Your task to perform on an android device: turn vacation reply on in the gmail app Image 0: 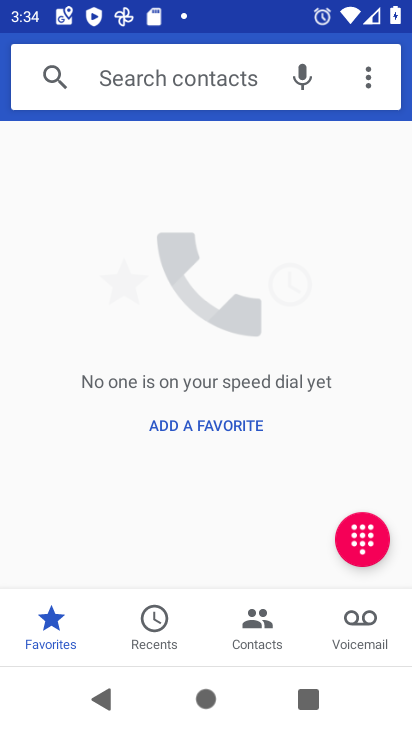
Step 0: press home button
Your task to perform on an android device: turn vacation reply on in the gmail app Image 1: 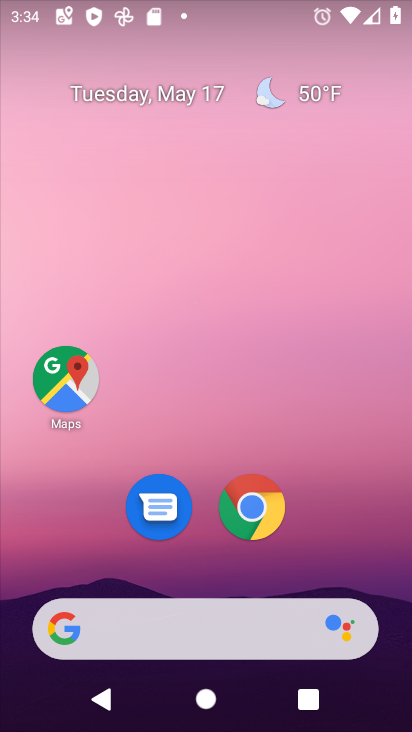
Step 1: drag from (300, 566) to (183, 103)
Your task to perform on an android device: turn vacation reply on in the gmail app Image 2: 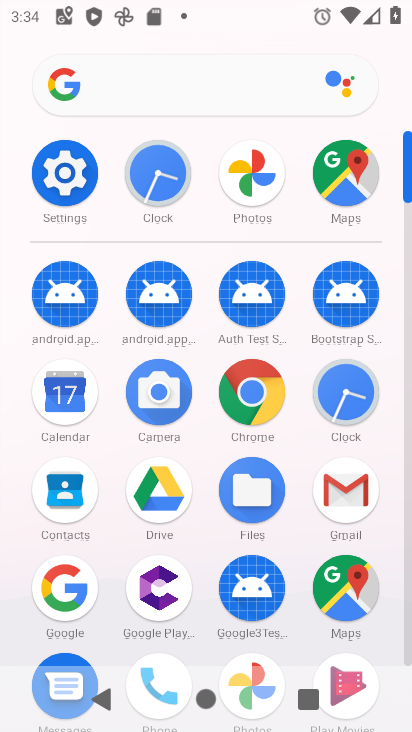
Step 2: click (341, 484)
Your task to perform on an android device: turn vacation reply on in the gmail app Image 3: 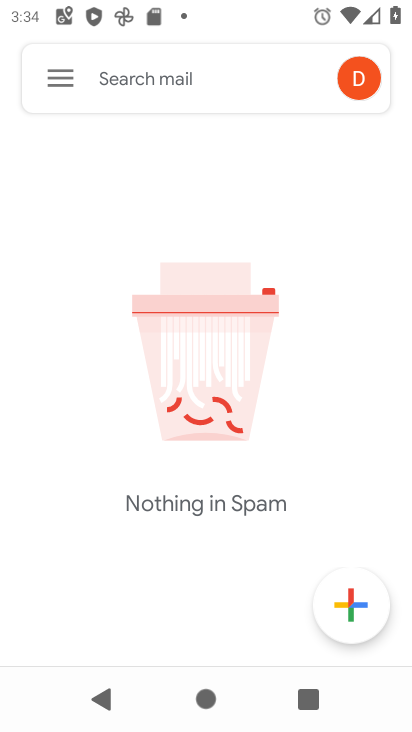
Step 3: click (61, 75)
Your task to perform on an android device: turn vacation reply on in the gmail app Image 4: 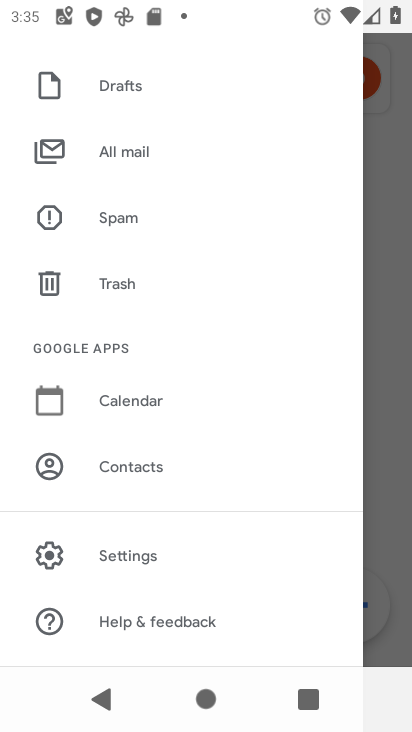
Step 4: click (158, 551)
Your task to perform on an android device: turn vacation reply on in the gmail app Image 5: 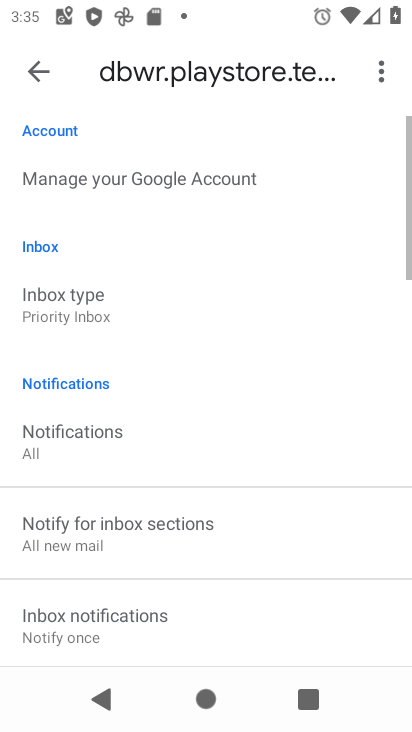
Step 5: drag from (190, 510) to (147, 119)
Your task to perform on an android device: turn vacation reply on in the gmail app Image 6: 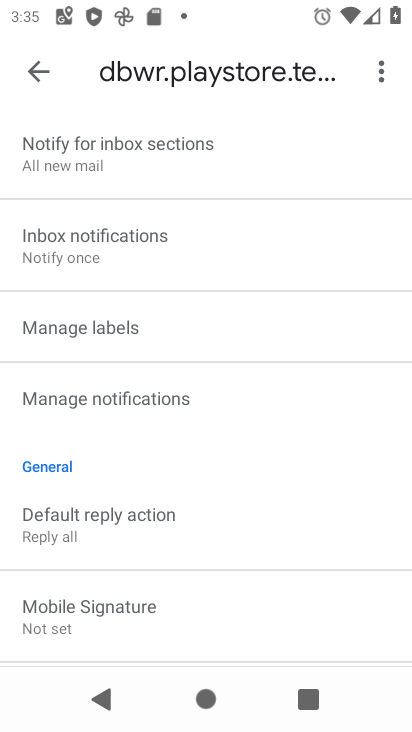
Step 6: drag from (159, 472) to (168, 279)
Your task to perform on an android device: turn vacation reply on in the gmail app Image 7: 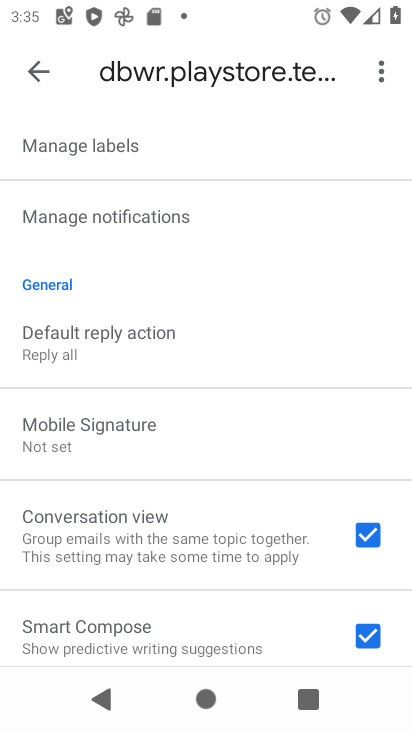
Step 7: drag from (175, 564) to (189, 146)
Your task to perform on an android device: turn vacation reply on in the gmail app Image 8: 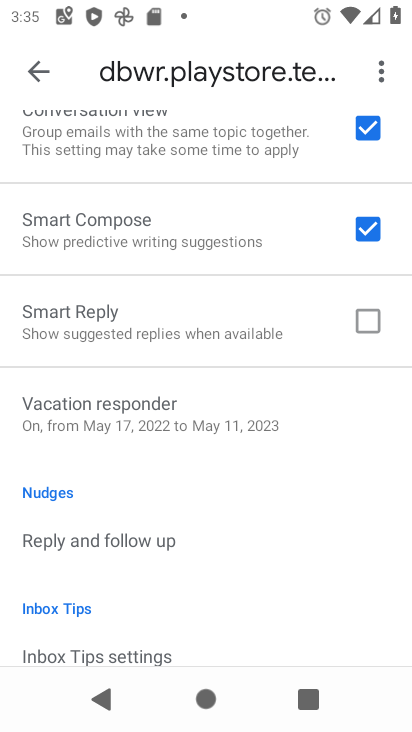
Step 8: click (181, 419)
Your task to perform on an android device: turn vacation reply on in the gmail app Image 9: 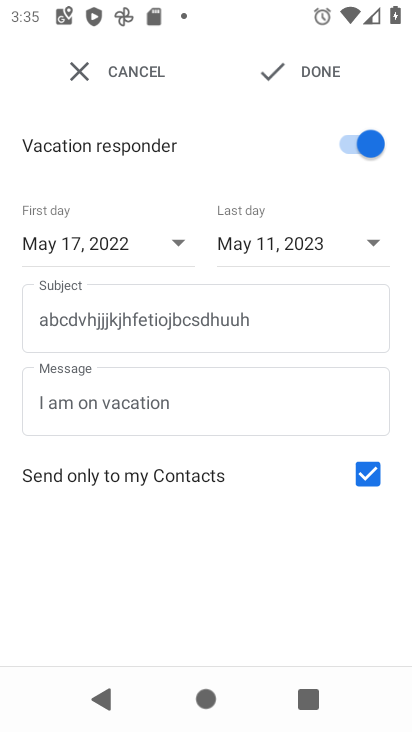
Step 9: click (311, 67)
Your task to perform on an android device: turn vacation reply on in the gmail app Image 10: 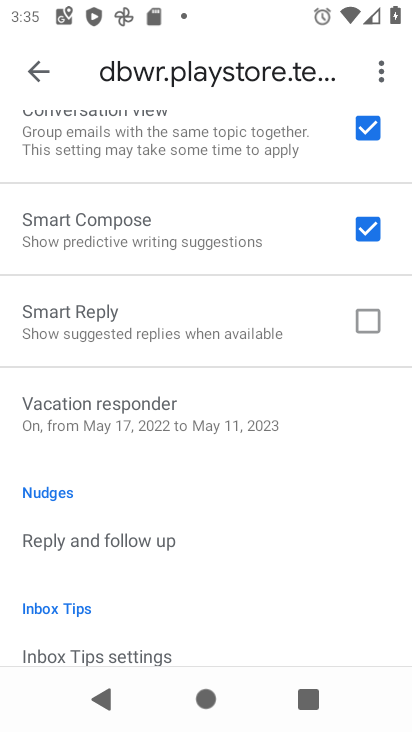
Step 10: task complete